Your task to perform on an android device: turn smart compose on in the gmail app Image 0: 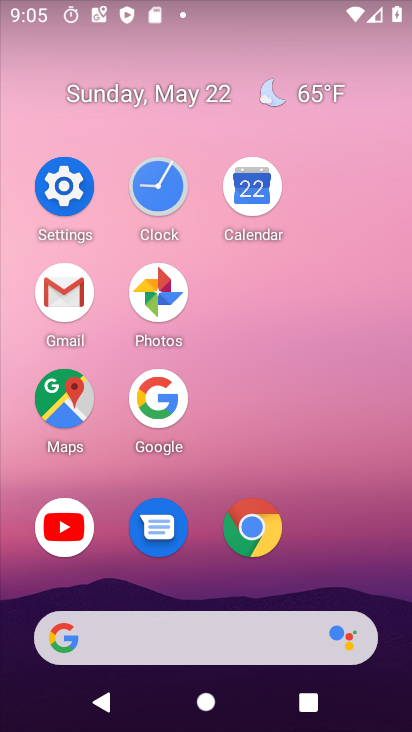
Step 0: click (62, 320)
Your task to perform on an android device: turn smart compose on in the gmail app Image 1: 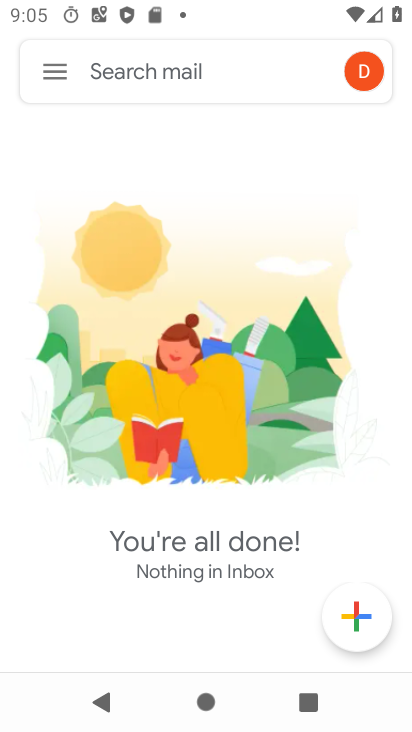
Step 1: click (61, 64)
Your task to perform on an android device: turn smart compose on in the gmail app Image 2: 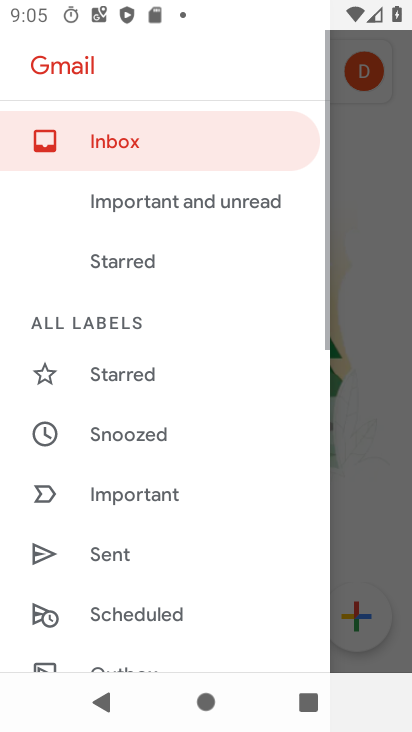
Step 2: drag from (147, 537) to (131, 126)
Your task to perform on an android device: turn smart compose on in the gmail app Image 3: 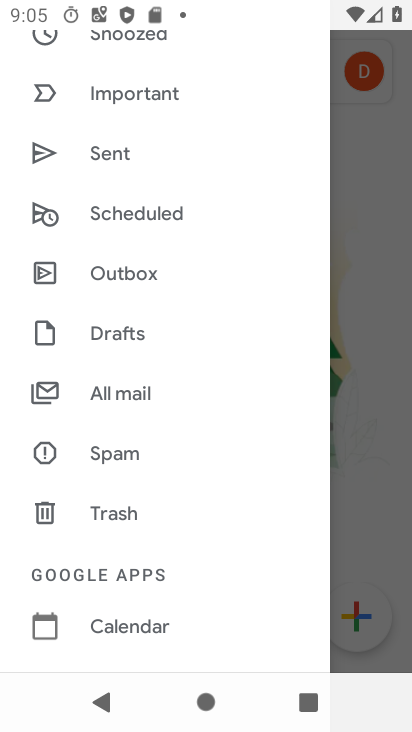
Step 3: drag from (113, 510) to (136, 221)
Your task to perform on an android device: turn smart compose on in the gmail app Image 4: 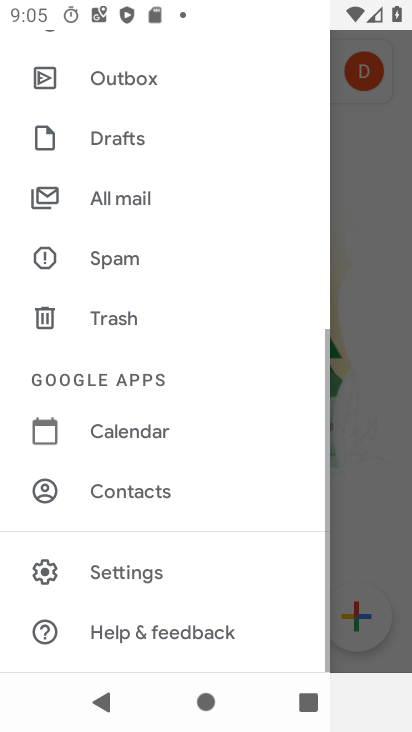
Step 4: click (145, 569)
Your task to perform on an android device: turn smart compose on in the gmail app Image 5: 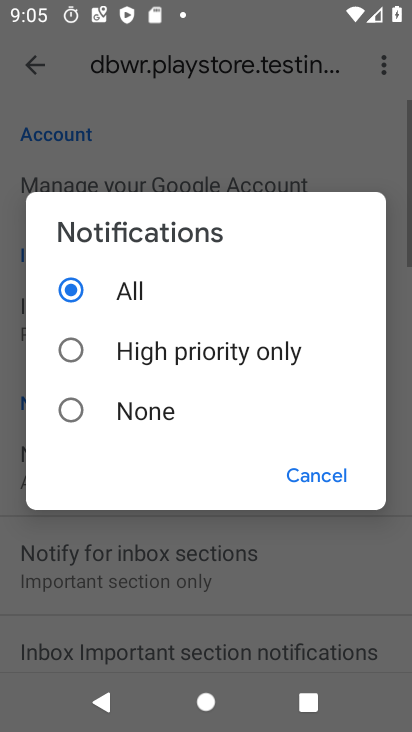
Step 5: click (299, 479)
Your task to perform on an android device: turn smart compose on in the gmail app Image 6: 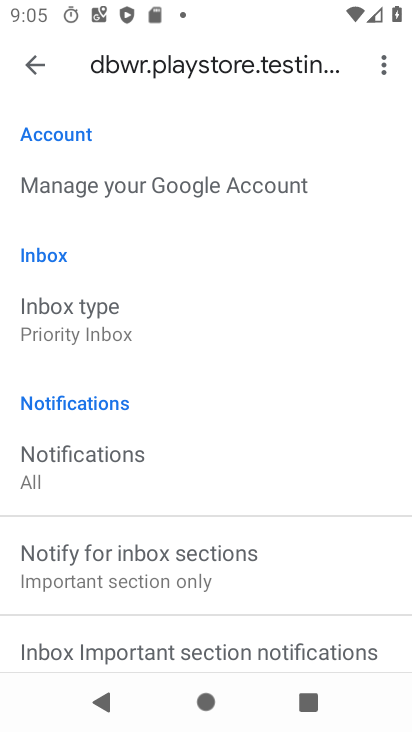
Step 6: task complete